Your task to perform on an android device: open chrome and create a bookmark for the current page Image 0: 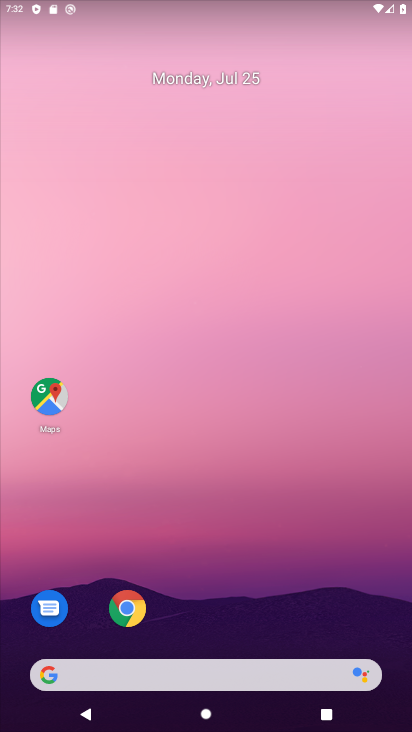
Step 0: drag from (192, 623) to (255, 74)
Your task to perform on an android device: open chrome and create a bookmark for the current page Image 1: 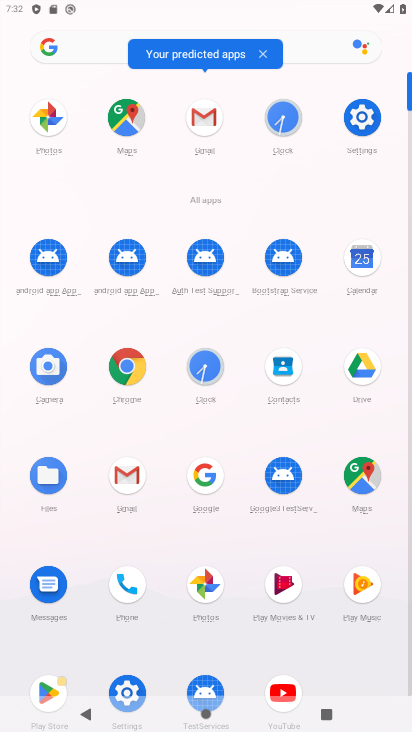
Step 1: click (124, 365)
Your task to perform on an android device: open chrome and create a bookmark for the current page Image 2: 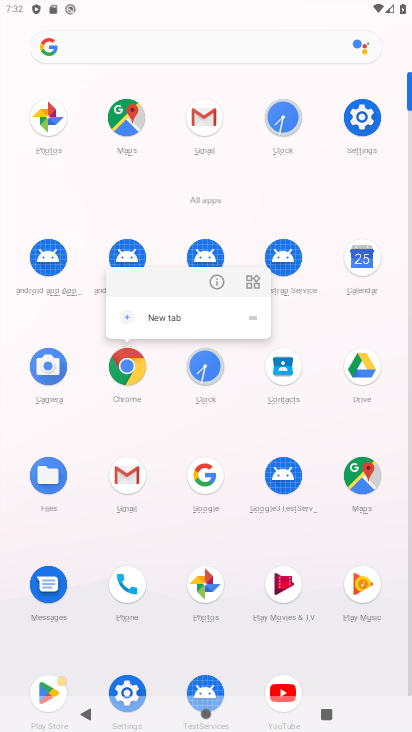
Step 2: click (212, 283)
Your task to perform on an android device: open chrome and create a bookmark for the current page Image 3: 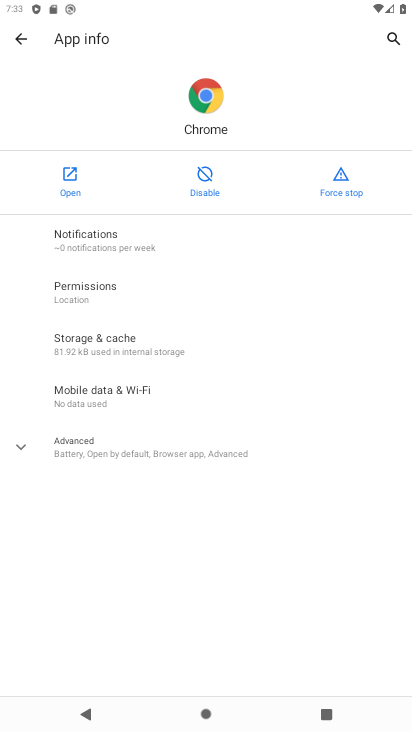
Step 3: click (57, 185)
Your task to perform on an android device: open chrome and create a bookmark for the current page Image 4: 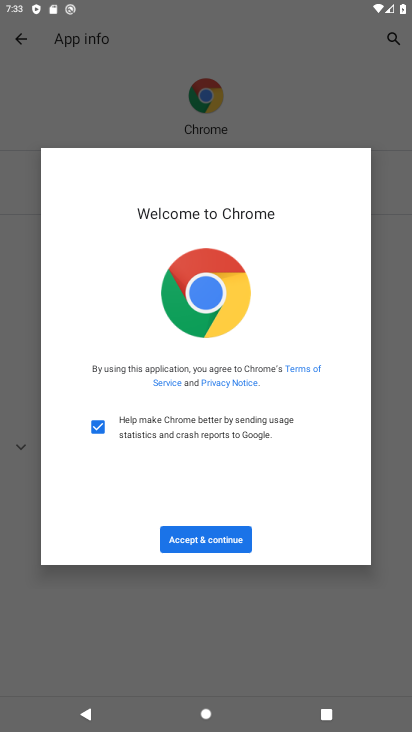
Step 4: click (218, 538)
Your task to perform on an android device: open chrome and create a bookmark for the current page Image 5: 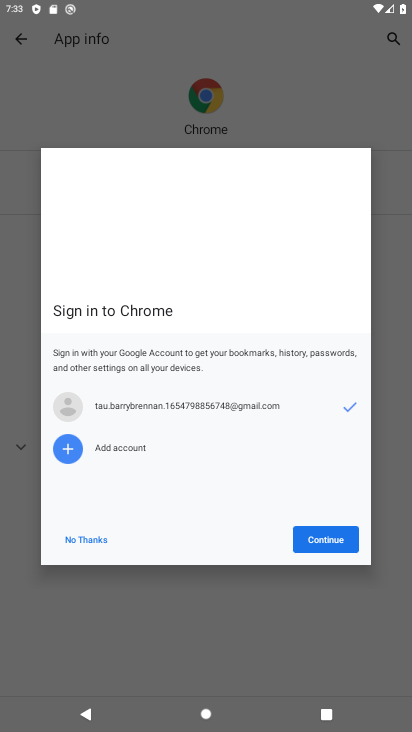
Step 5: click (302, 541)
Your task to perform on an android device: open chrome and create a bookmark for the current page Image 6: 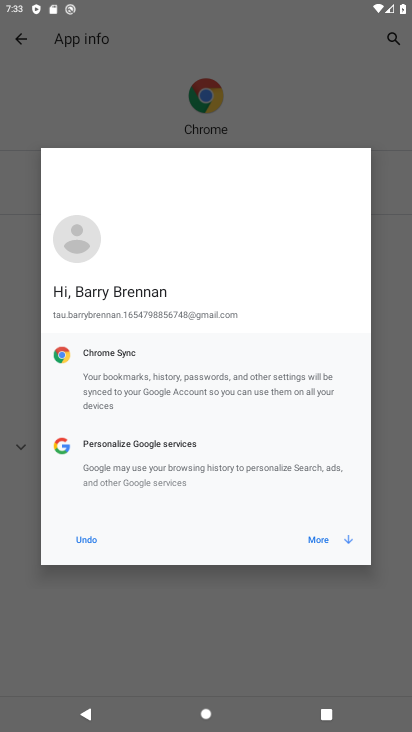
Step 6: click (309, 540)
Your task to perform on an android device: open chrome and create a bookmark for the current page Image 7: 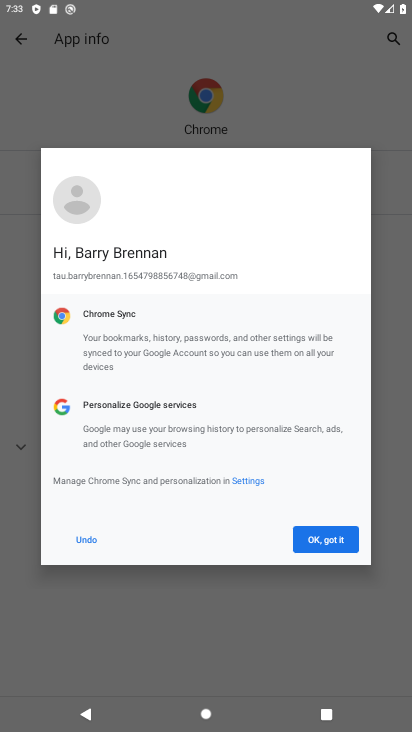
Step 7: click (322, 539)
Your task to perform on an android device: open chrome and create a bookmark for the current page Image 8: 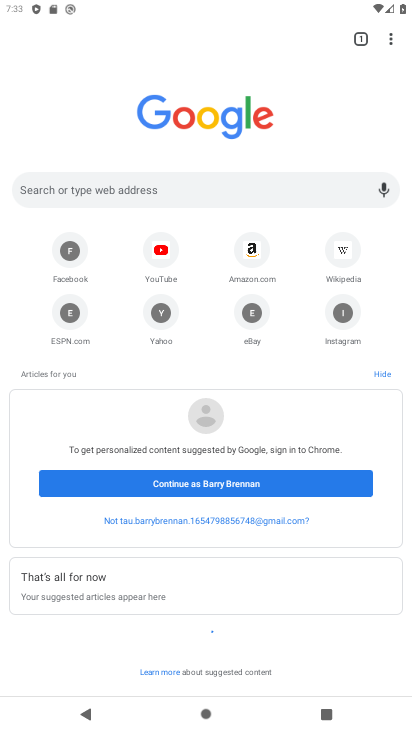
Step 8: click (390, 31)
Your task to perform on an android device: open chrome and create a bookmark for the current page Image 9: 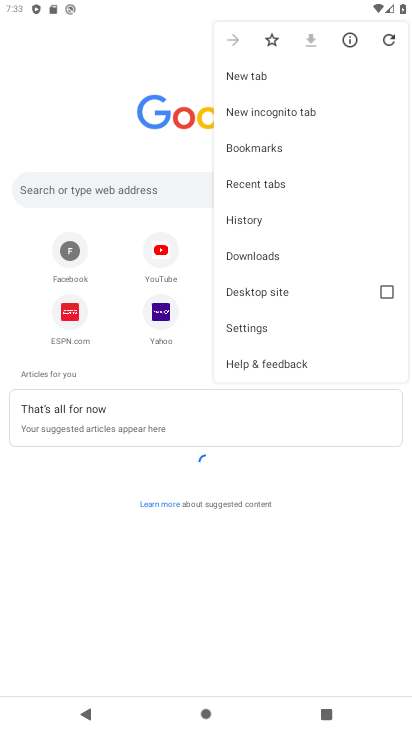
Step 9: click (263, 41)
Your task to perform on an android device: open chrome and create a bookmark for the current page Image 10: 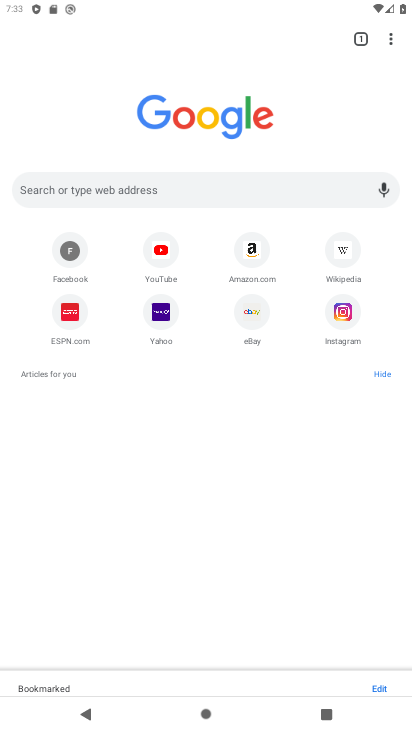
Step 10: task complete